Your task to perform on an android device: delete browsing data in the chrome app Image 0: 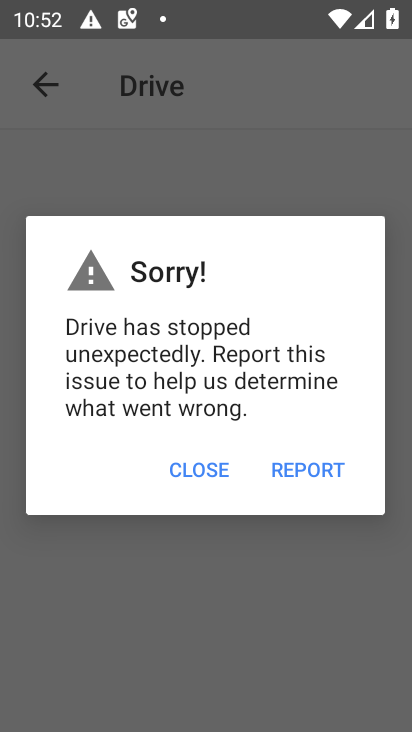
Step 0: press home button
Your task to perform on an android device: delete browsing data in the chrome app Image 1: 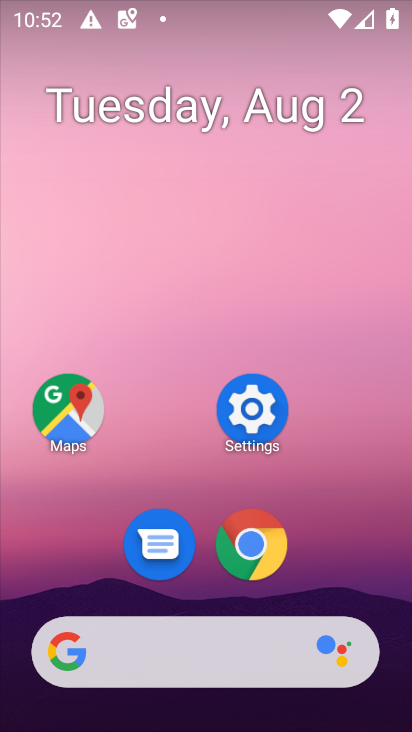
Step 1: click (251, 553)
Your task to perform on an android device: delete browsing data in the chrome app Image 2: 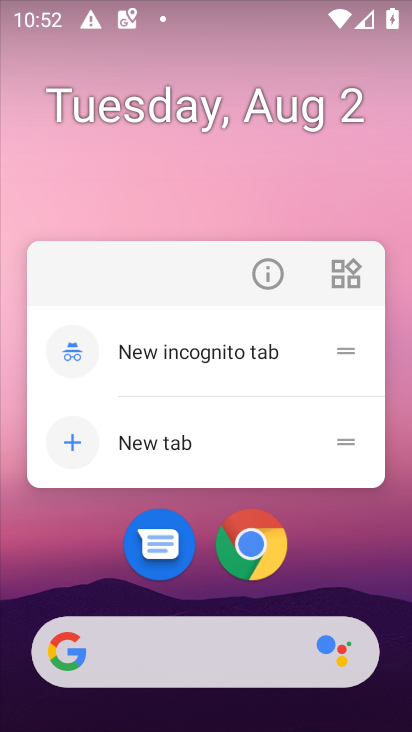
Step 2: click (260, 545)
Your task to perform on an android device: delete browsing data in the chrome app Image 3: 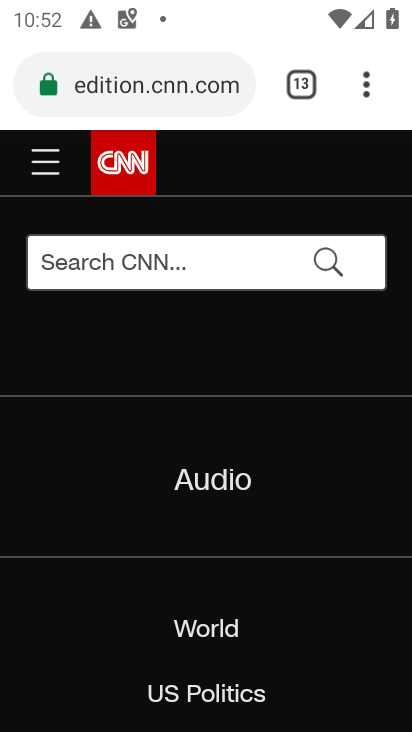
Step 3: drag from (371, 81) to (180, 596)
Your task to perform on an android device: delete browsing data in the chrome app Image 4: 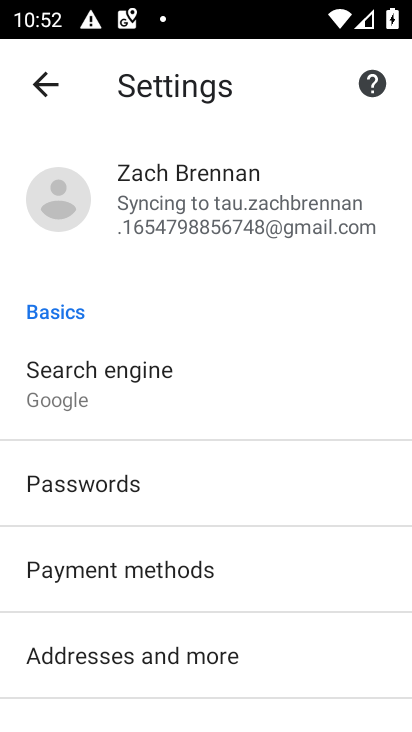
Step 4: drag from (224, 624) to (265, 223)
Your task to perform on an android device: delete browsing data in the chrome app Image 5: 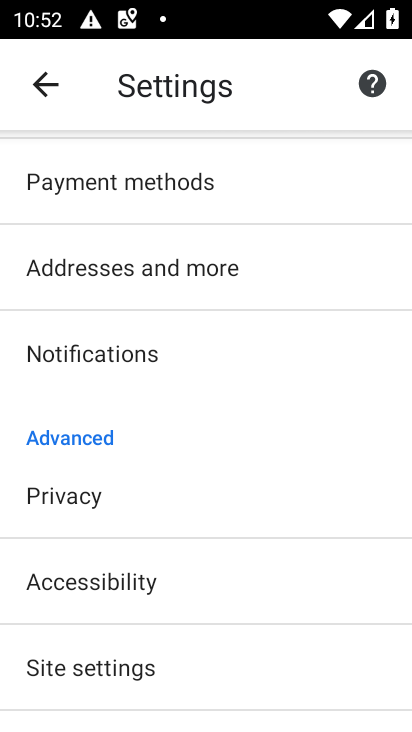
Step 5: click (90, 493)
Your task to perform on an android device: delete browsing data in the chrome app Image 6: 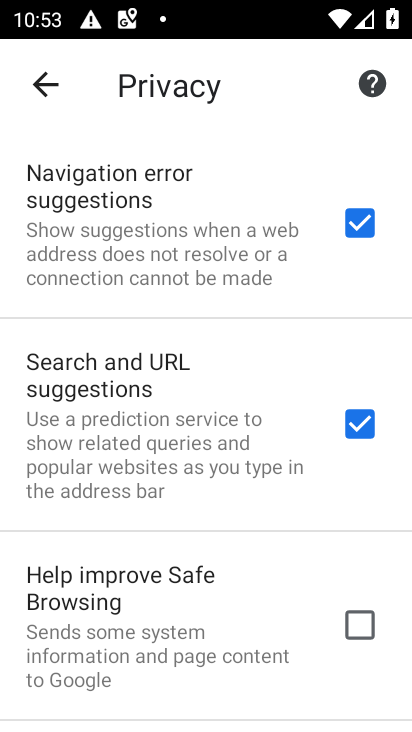
Step 6: task complete